Your task to perform on an android device: Open notification settings Image 0: 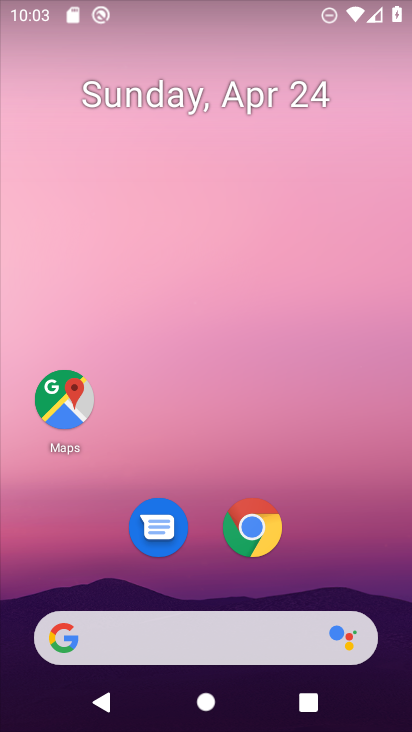
Step 0: drag from (389, 623) to (246, 127)
Your task to perform on an android device: Open notification settings Image 1: 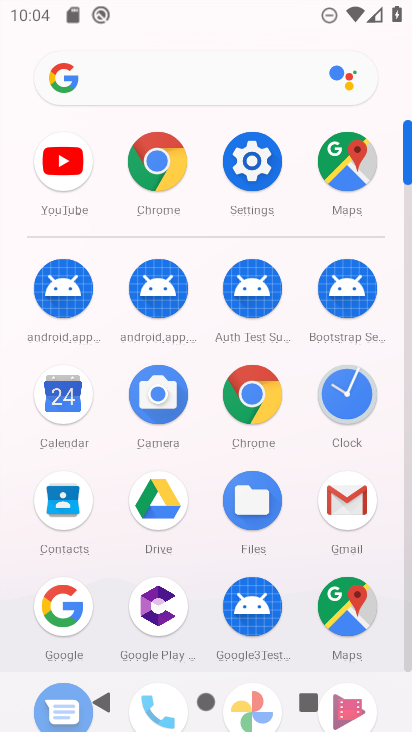
Step 1: click (261, 178)
Your task to perform on an android device: Open notification settings Image 2: 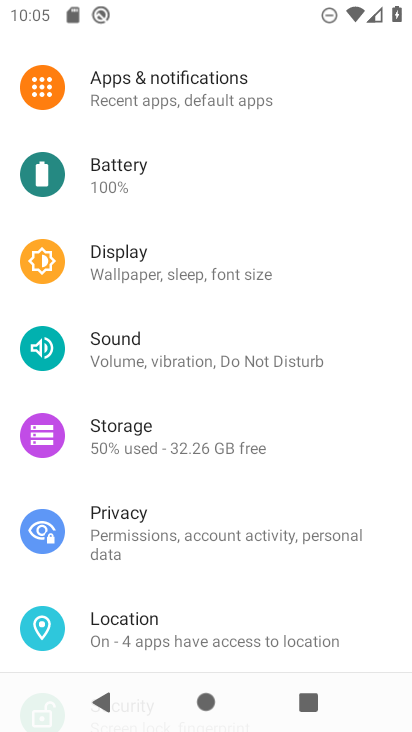
Step 2: click (202, 97)
Your task to perform on an android device: Open notification settings Image 3: 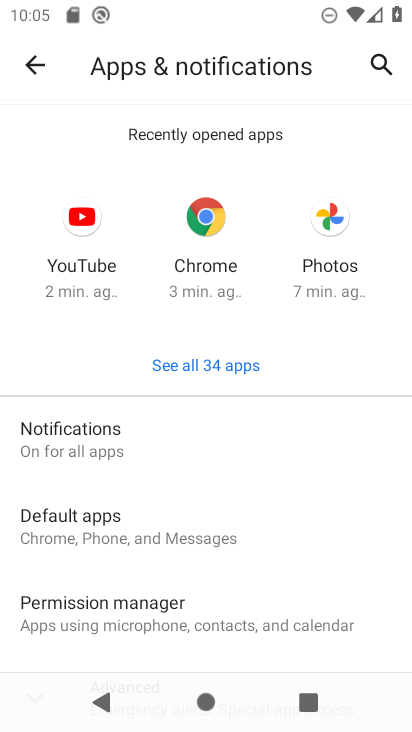
Step 3: click (192, 434)
Your task to perform on an android device: Open notification settings Image 4: 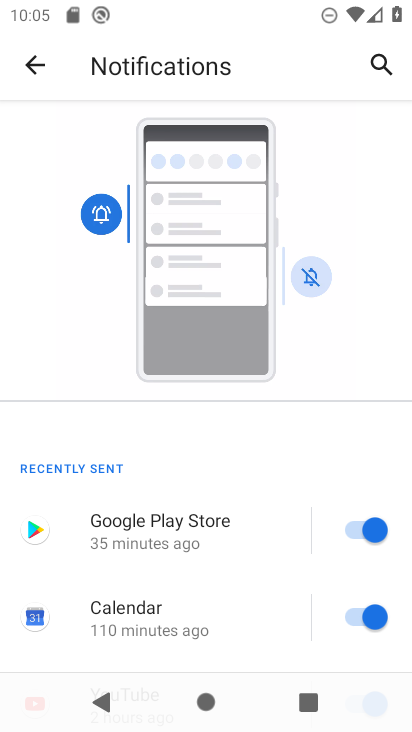
Step 4: task complete